Your task to perform on an android device: set an alarm Image 0: 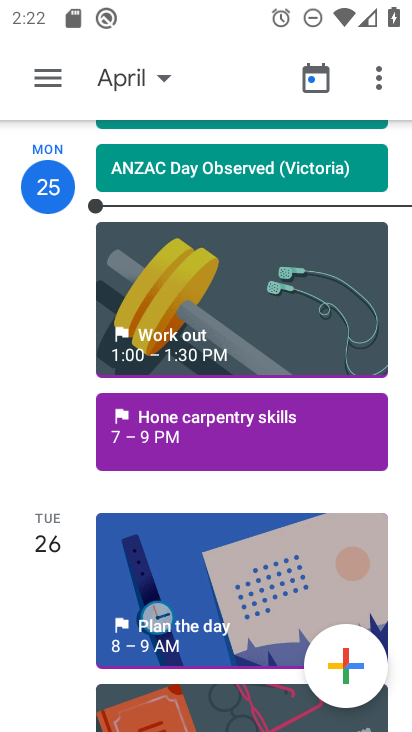
Step 0: press home button
Your task to perform on an android device: set an alarm Image 1: 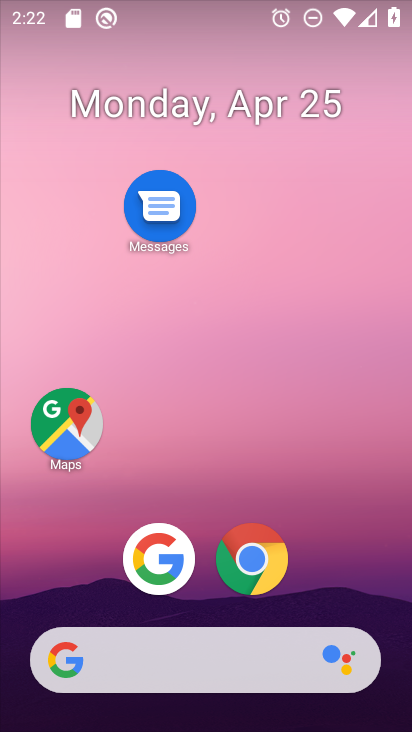
Step 1: drag from (204, 556) to (215, 164)
Your task to perform on an android device: set an alarm Image 2: 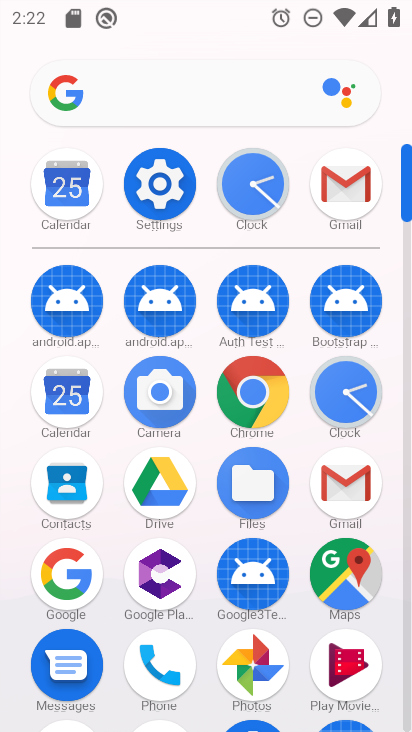
Step 2: click (344, 394)
Your task to perform on an android device: set an alarm Image 3: 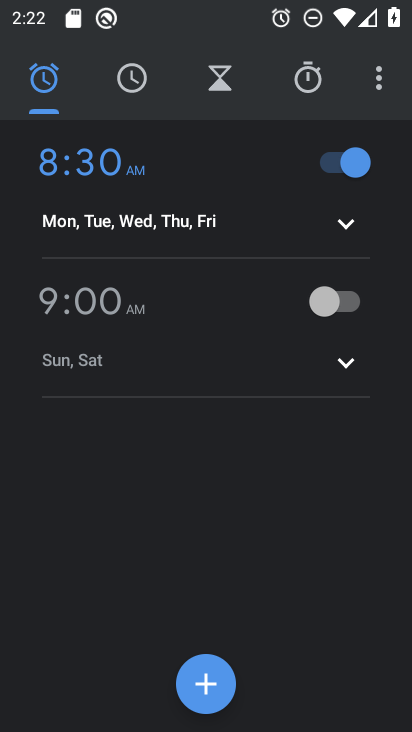
Step 3: click (323, 303)
Your task to perform on an android device: set an alarm Image 4: 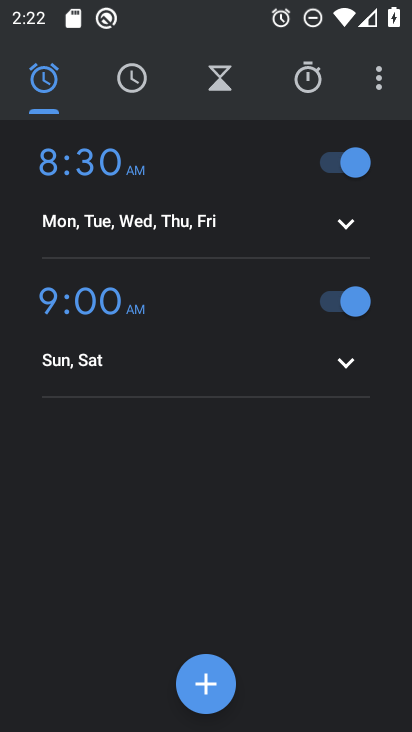
Step 4: task complete